Your task to perform on an android device: toggle notifications settings in the gmail app Image 0: 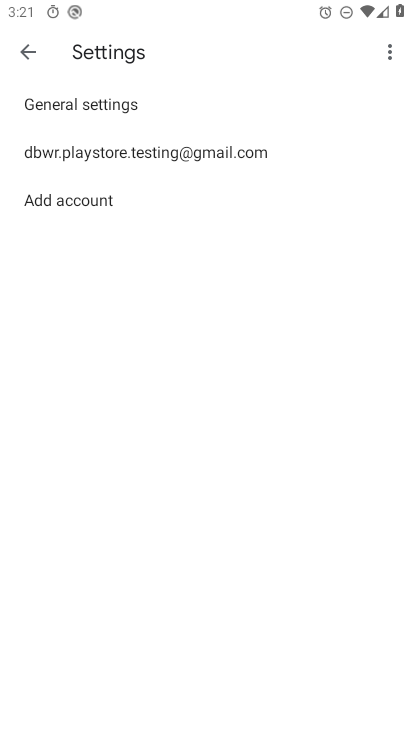
Step 0: press home button
Your task to perform on an android device: toggle notifications settings in the gmail app Image 1: 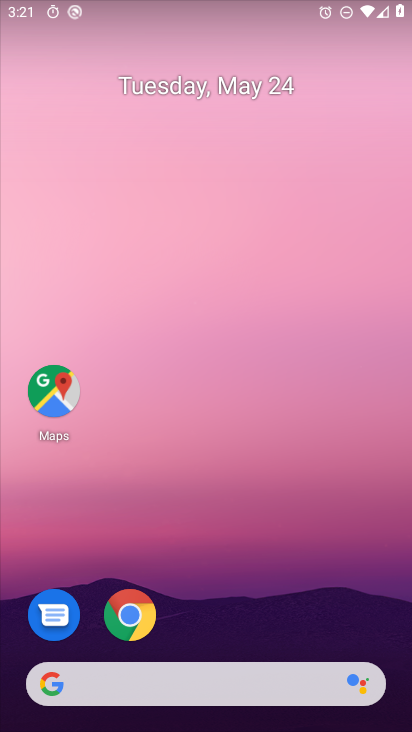
Step 1: drag from (255, 662) to (251, 258)
Your task to perform on an android device: toggle notifications settings in the gmail app Image 2: 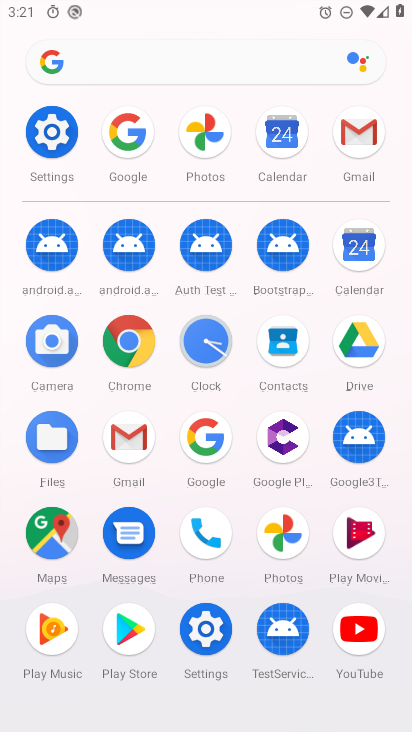
Step 2: click (364, 142)
Your task to perform on an android device: toggle notifications settings in the gmail app Image 3: 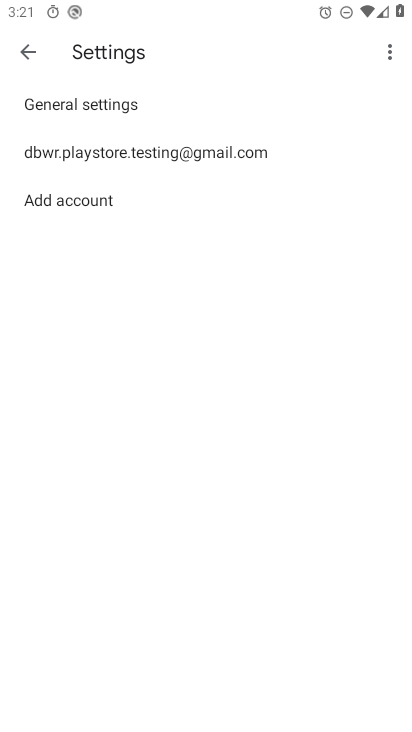
Step 3: click (62, 96)
Your task to perform on an android device: toggle notifications settings in the gmail app Image 4: 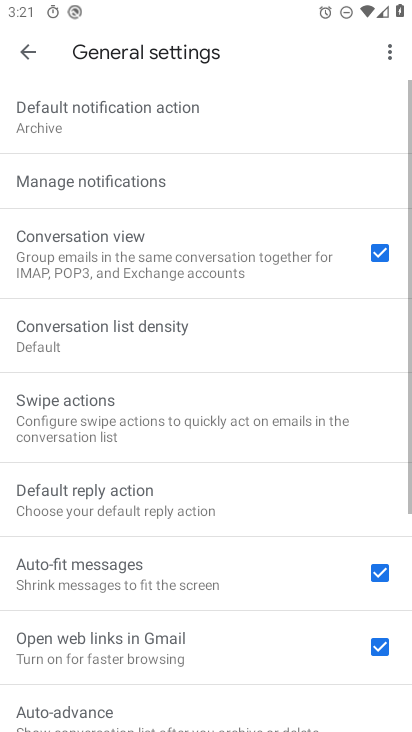
Step 4: click (104, 198)
Your task to perform on an android device: toggle notifications settings in the gmail app Image 5: 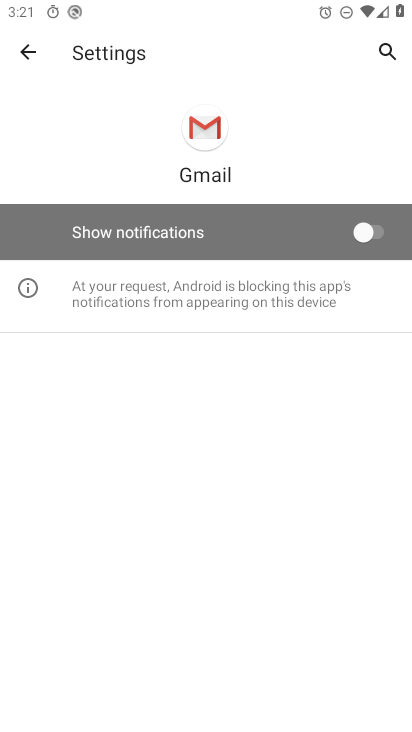
Step 5: click (372, 234)
Your task to perform on an android device: toggle notifications settings in the gmail app Image 6: 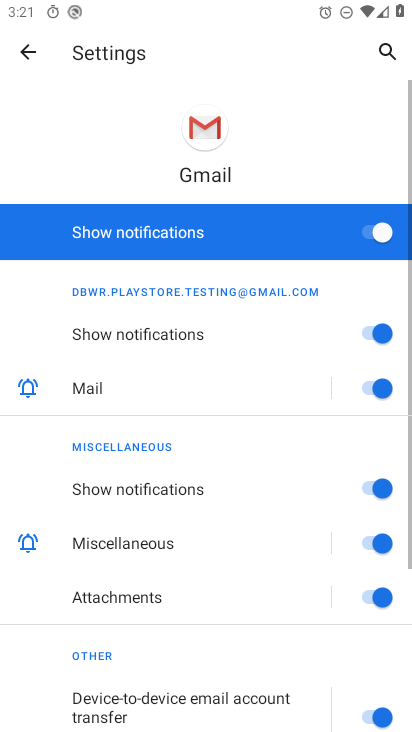
Step 6: task complete